Your task to perform on an android device: Set the phone to "Do not disturb". Image 0: 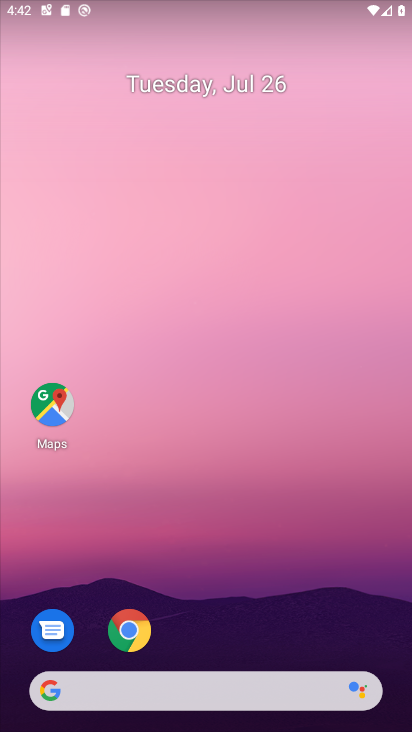
Step 0: drag from (233, 629) to (191, 119)
Your task to perform on an android device: Set the phone to "Do not disturb". Image 1: 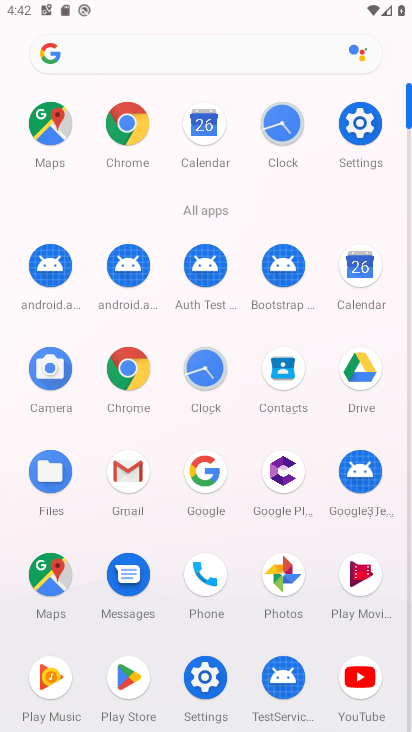
Step 1: click (365, 129)
Your task to perform on an android device: Set the phone to "Do not disturb". Image 2: 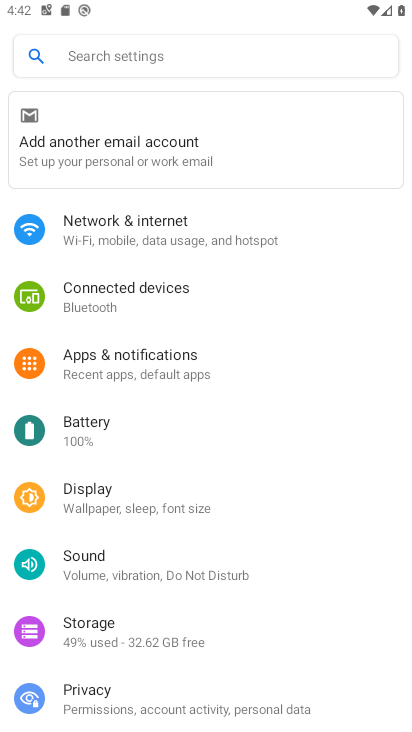
Step 2: click (146, 575)
Your task to perform on an android device: Set the phone to "Do not disturb". Image 3: 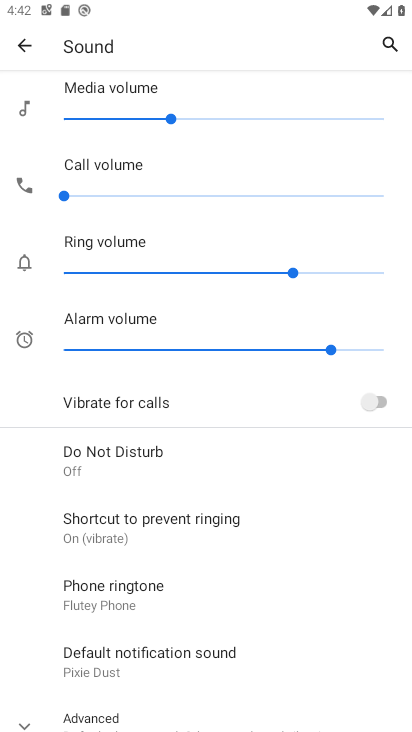
Step 3: click (227, 452)
Your task to perform on an android device: Set the phone to "Do not disturb". Image 4: 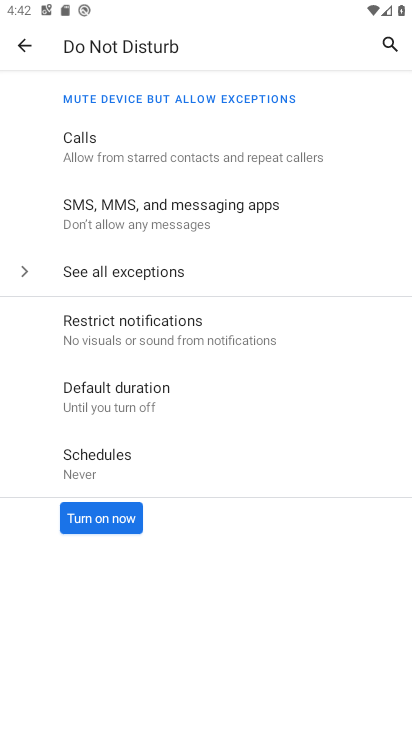
Step 4: click (115, 513)
Your task to perform on an android device: Set the phone to "Do not disturb". Image 5: 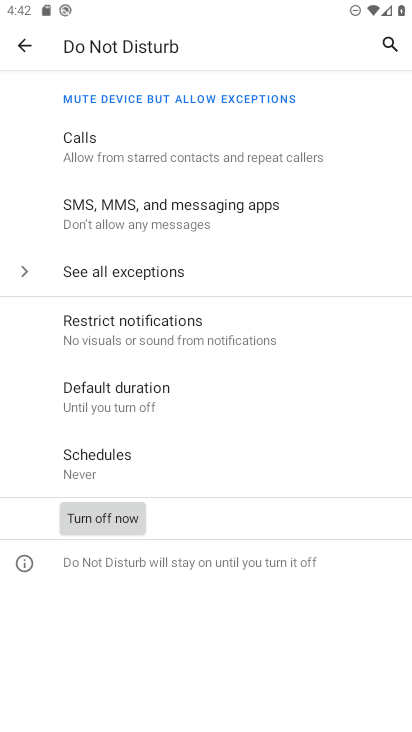
Step 5: task complete